Your task to perform on an android device: Show the shopping cart on bestbuy. Search for jbl flip 4 on bestbuy, select the first entry, add it to the cart, then select checkout. Image 0: 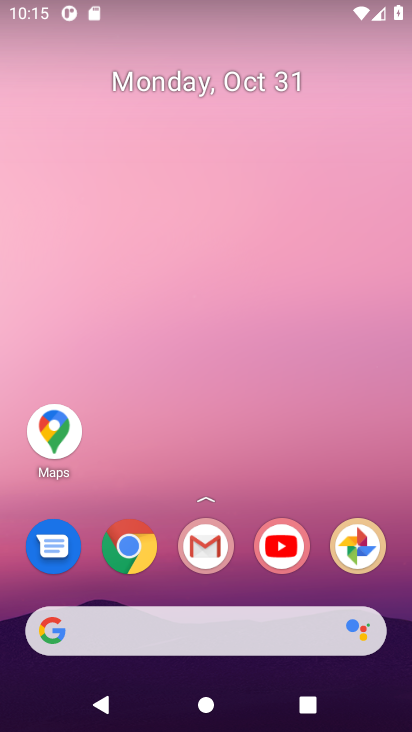
Step 0: click (140, 550)
Your task to perform on an android device: Show the shopping cart on bestbuy. Search for jbl flip 4 on bestbuy, select the first entry, add it to the cart, then select checkout. Image 1: 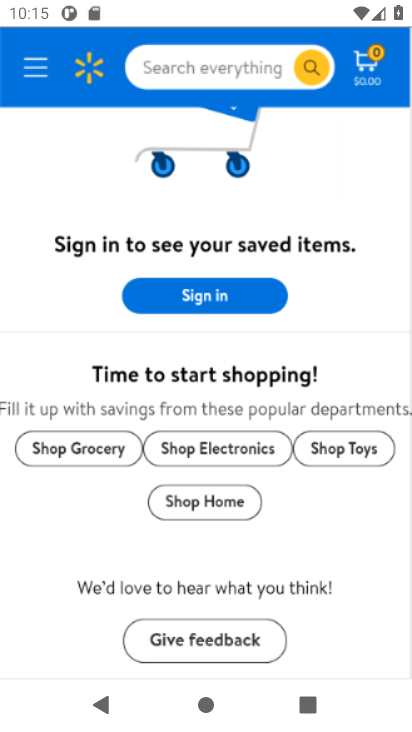
Step 1: click (140, 550)
Your task to perform on an android device: Show the shopping cart on bestbuy. Search for jbl flip 4 on bestbuy, select the first entry, add it to the cart, then select checkout. Image 2: 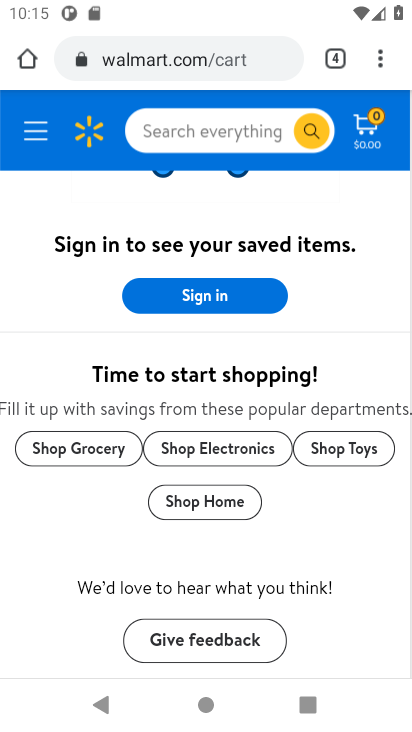
Step 2: click (138, 55)
Your task to perform on an android device: Show the shopping cart on bestbuy. Search for jbl flip 4 on bestbuy, select the first entry, add it to the cart, then select checkout. Image 3: 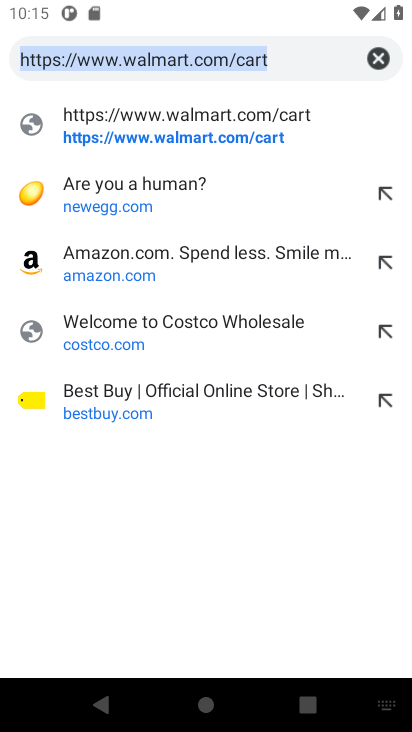
Step 3: type "bestbuy."
Your task to perform on an android device: Show the shopping cart on bestbuy. Search for jbl flip 4 on bestbuy, select the first entry, add it to the cart, then select checkout. Image 4: 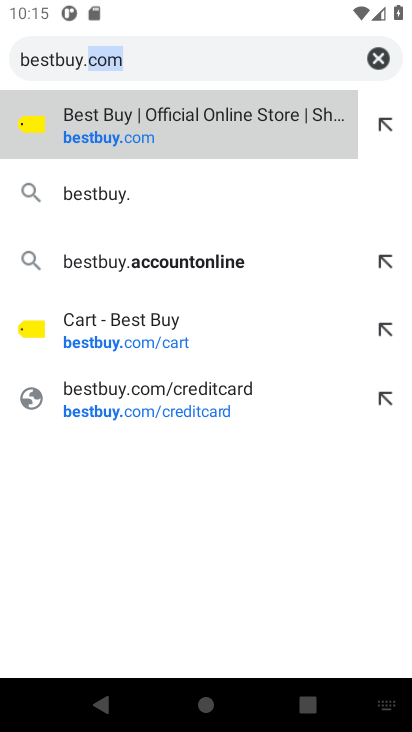
Step 4: press enter
Your task to perform on an android device: Show the shopping cart on bestbuy. Search for jbl flip 4 on bestbuy, select the first entry, add it to the cart, then select checkout. Image 5: 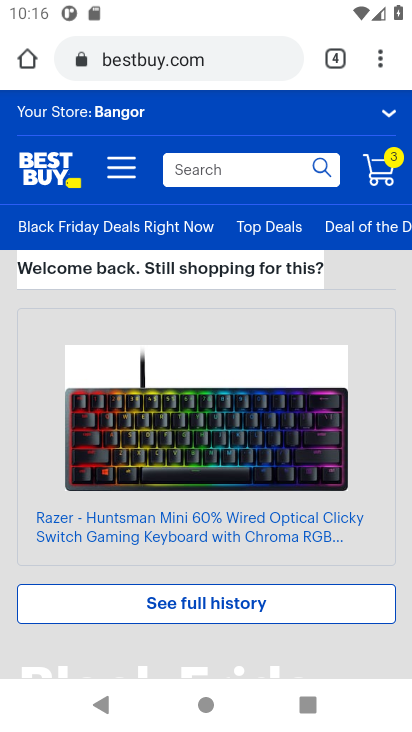
Step 5: click (384, 173)
Your task to perform on an android device: Show the shopping cart on bestbuy. Search for jbl flip 4 on bestbuy, select the first entry, add it to the cart, then select checkout. Image 6: 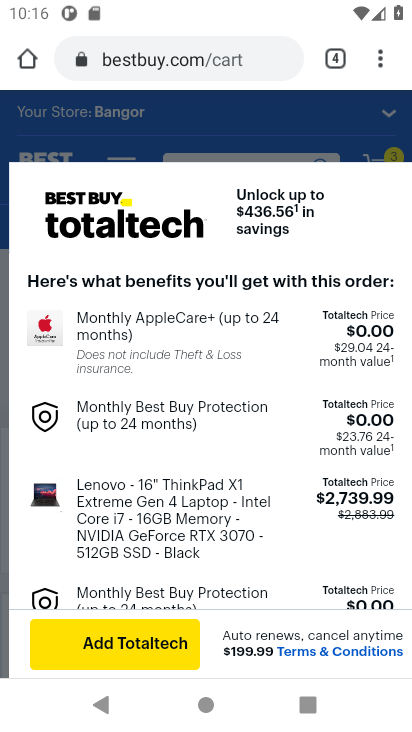
Step 6: click (259, 172)
Your task to perform on an android device: Show the shopping cart on bestbuy. Search for jbl flip 4 on bestbuy, select the first entry, add it to the cart, then select checkout. Image 7: 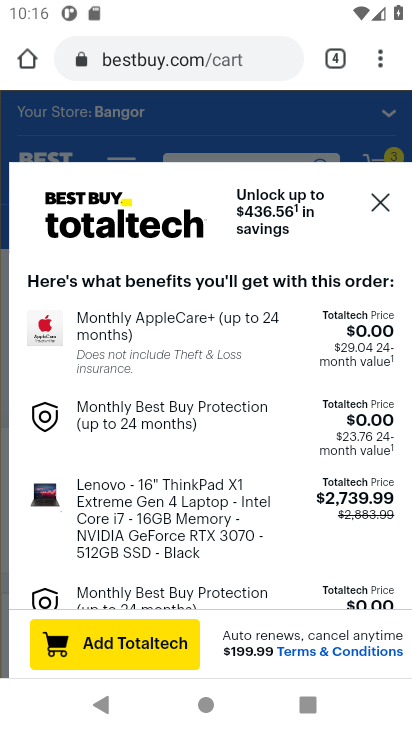
Step 7: click (251, 142)
Your task to perform on an android device: Show the shopping cart on bestbuy. Search for jbl flip 4 on bestbuy, select the first entry, add it to the cart, then select checkout. Image 8: 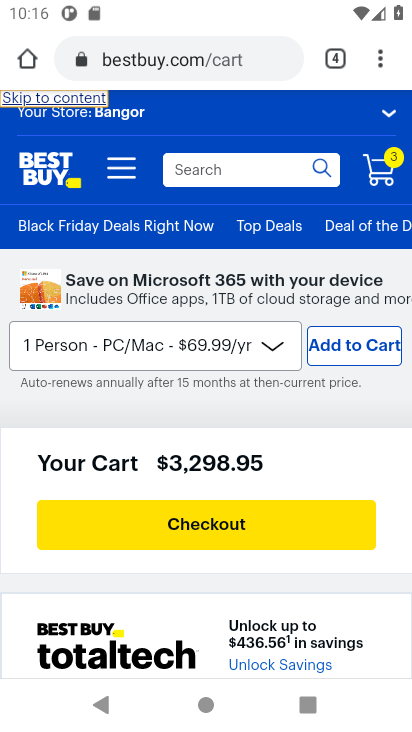
Step 8: click (239, 180)
Your task to perform on an android device: Show the shopping cart on bestbuy. Search for jbl flip 4 on bestbuy, select the first entry, add it to the cart, then select checkout. Image 9: 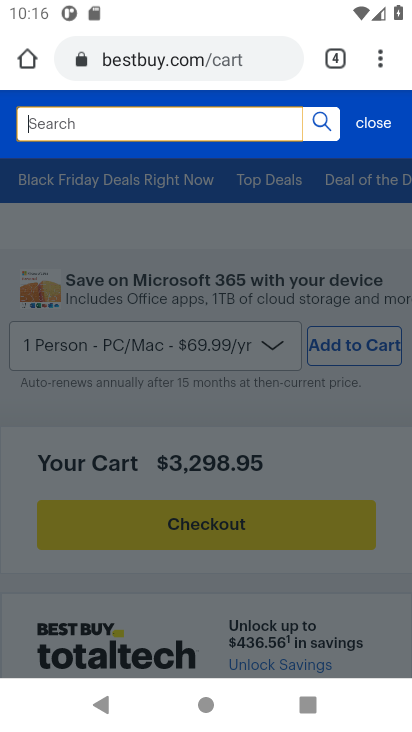
Step 9: click (227, 170)
Your task to perform on an android device: Show the shopping cart on bestbuy. Search for jbl flip 4 on bestbuy, select the first entry, add it to the cart, then select checkout. Image 10: 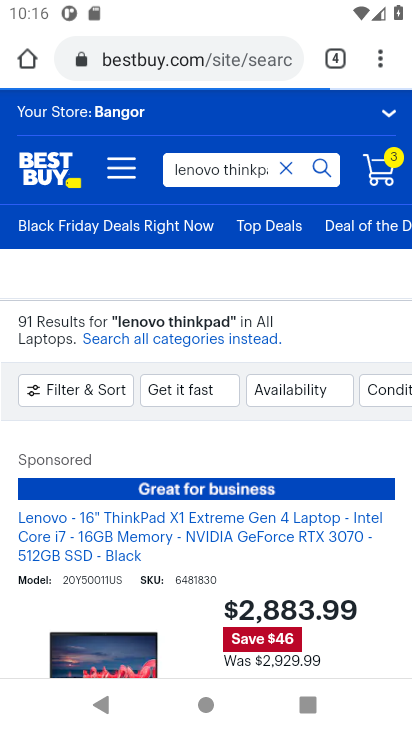
Step 10: type "jbl flip 4"
Your task to perform on an android device: Show the shopping cart on bestbuy. Search for jbl flip 4 on bestbuy, select the first entry, add it to the cart, then select checkout. Image 11: 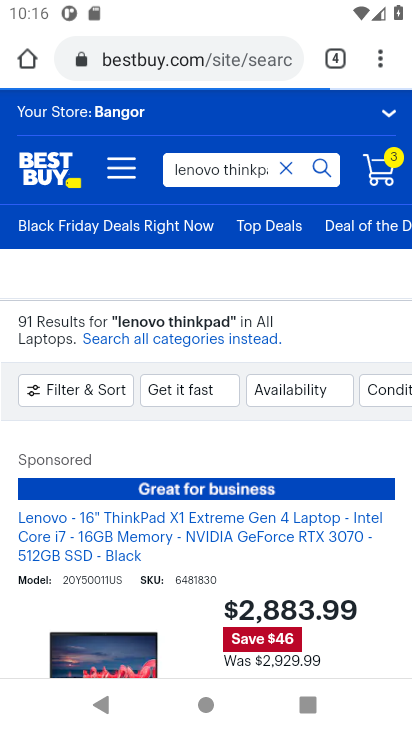
Step 11: click (289, 173)
Your task to perform on an android device: Show the shopping cart on bestbuy. Search for jbl flip 4 on bestbuy, select the first entry, add it to the cart, then select checkout. Image 12: 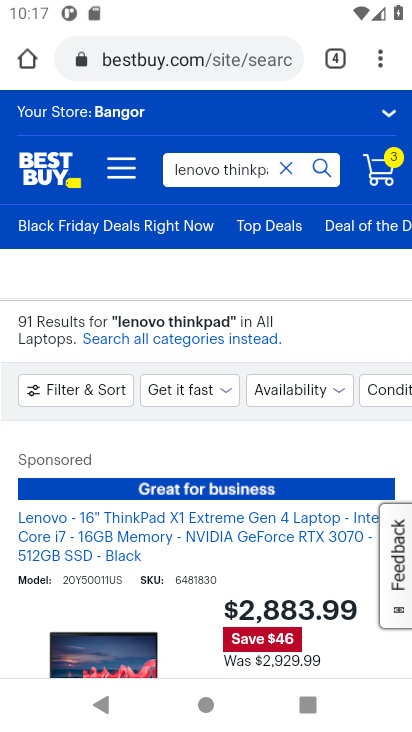
Step 12: click (289, 173)
Your task to perform on an android device: Show the shopping cart on bestbuy. Search for jbl flip 4 on bestbuy, select the first entry, add it to the cart, then select checkout. Image 13: 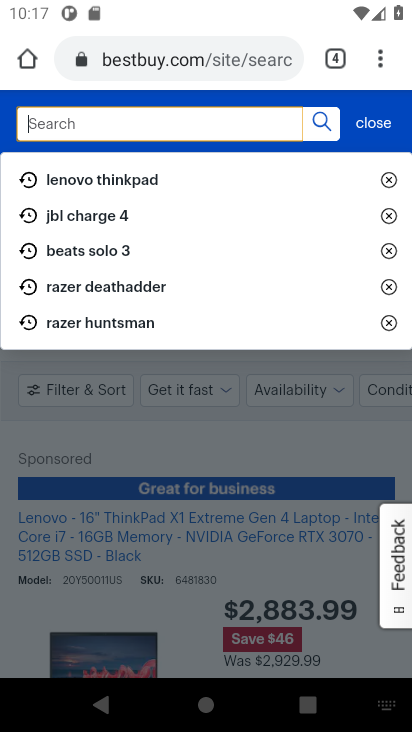
Step 13: click (188, 138)
Your task to perform on an android device: Show the shopping cart on bestbuy. Search for jbl flip 4 on bestbuy, select the first entry, add it to the cart, then select checkout. Image 14: 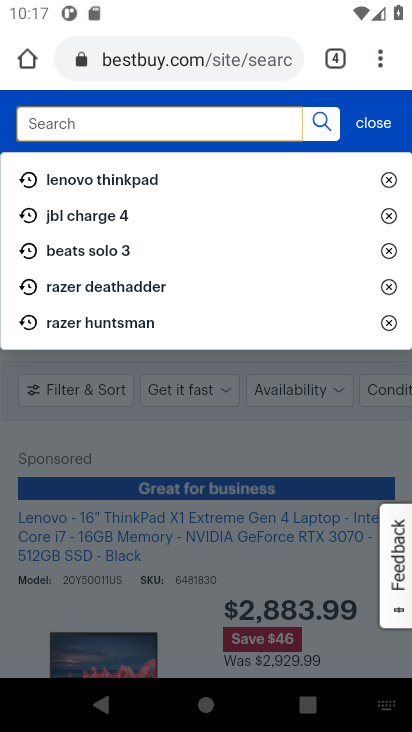
Step 14: type " jbl flip 4"
Your task to perform on an android device: Show the shopping cart on bestbuy. Search for jbl flip 4 on bestbuy, select the first entry, add it to the cart, then select checkout. Image 15: 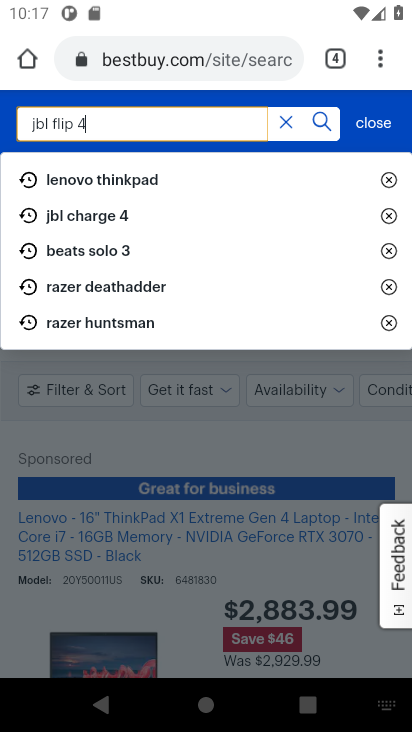
Step 15: press enter
Your task to perform on an android device: Show the shopping cart on bestbuy. Search for jbl flip 4 on bestbuy, select the first entry, add it to the cart, then select checkout. Image 16: 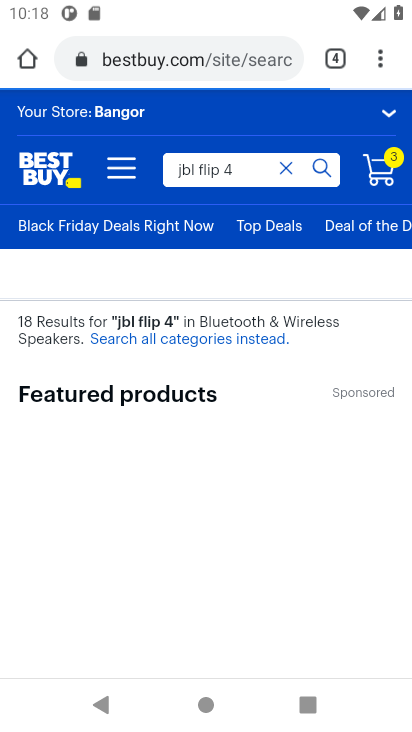
Step 16: drag from (262, 478) to (260, 232)
Your task to perform on an android device: Show the shopping cart on bestbuy. Search for jbl flip 4 on bestbuy, select the first entry, add it to the cart, then select checkout. Image 17: 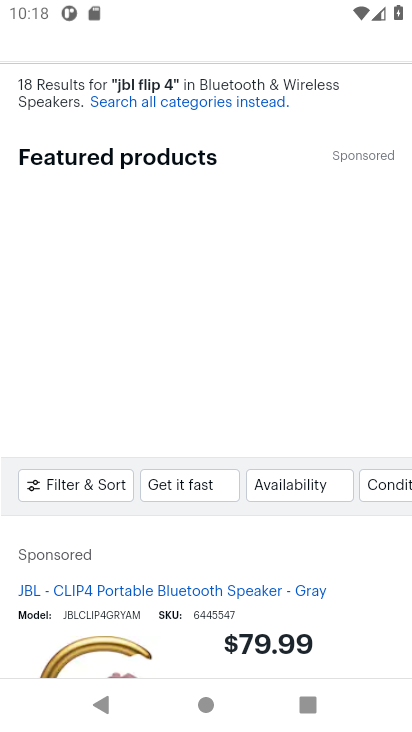
Step 17: drag from (261, 413) to (275, 229)
Your task to perform on an android device: Show the shopping cart on bestbuy. Search for jbl flip 4 on bestbuy, select the first entry, add it to the cart, then select checkout. Image 18: 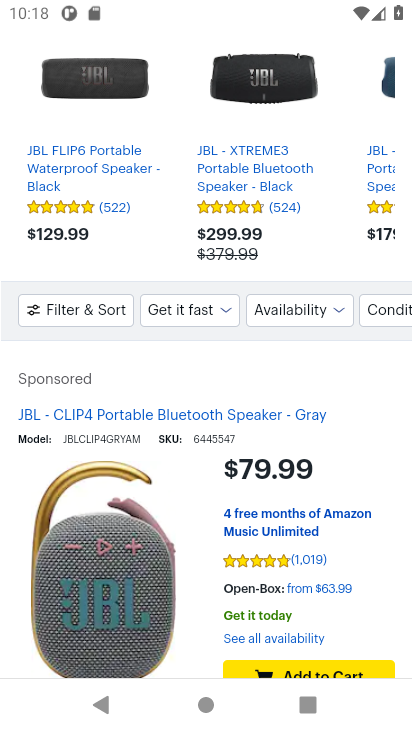
Step 18: drag from (242, 416) to (328, 154)
Your task to perform on an android device: Show the shopping cart on bestbuy. Search for jbl flip 4 on bestbuy, select the first entry, add it to the cart, then select checkout. Image 19: 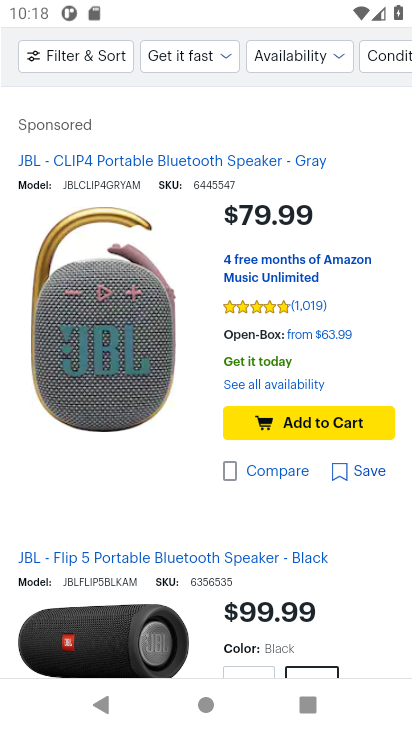
Step 19: drag from (325, 158) to (264, 583)
Your task to perform on an android device: Show the shopping cart on bestbuy. Search for jbl flip 4 on bestbuy, select the first entry, add it to the cart, then select checkout. Image 20: 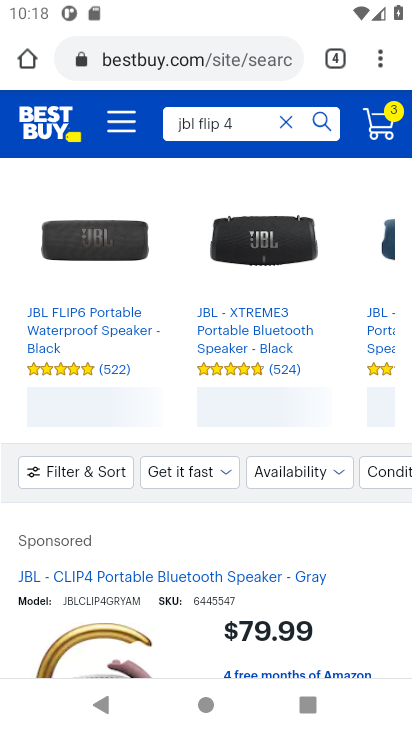
Step 20: drag from (276, 306) to (282, 566)
Your task to perform on an android device: Show the shopping cart on bestbuy. Search for jbl flip 4 on bestbuy, select the first entry, add it to the cart, then select checkout. Image 21: 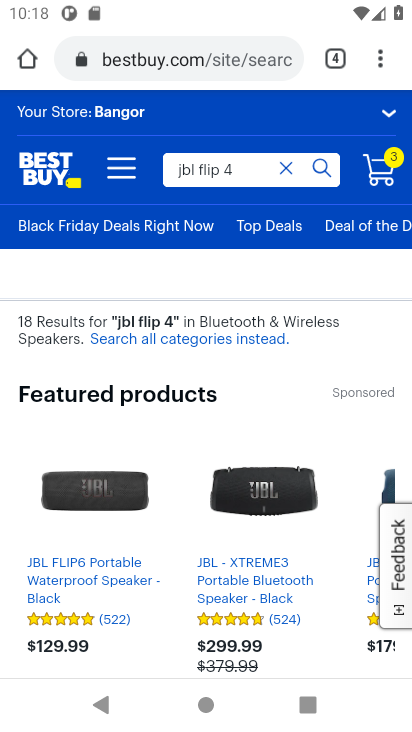
Step 21: drag from (204, 376) to (227, 236)
Your task to perform on an android device: Show the shopping cart on bestbuy. Search for jbl flip 4 on bestbuy, select the first entry, add it to the cart, then select checkout. Image 22: 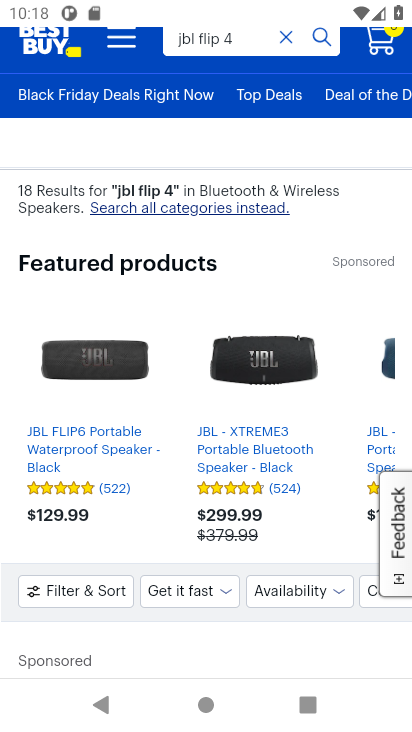
Step 22: drag from (188, 499) to (236, 255)
Your task to perform on an android device: Show the shopping cart on bestbuy. Search for jbl flip 4 on bestbuy, select the first entry, add it to the cart, then select checkout. Image 23: 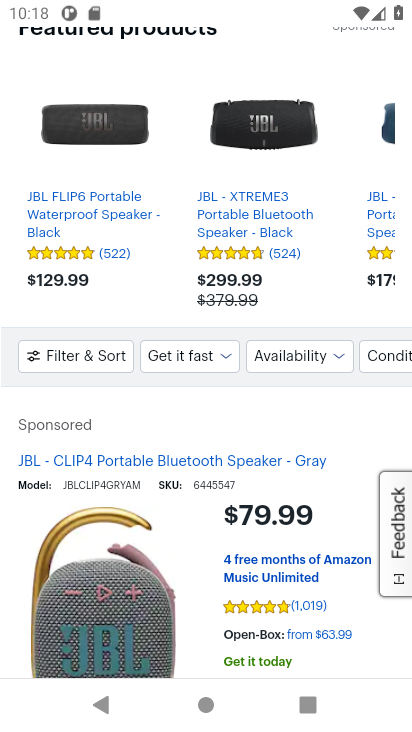
Step 23: drag from (191, 563) to (230, 179)
Your task to perform on an android device: Show the shopping cart on bestbuy. Search for jbl flip 4 on bestbuy, select the first entry, add it to the cart, then select checkout. Image 24: 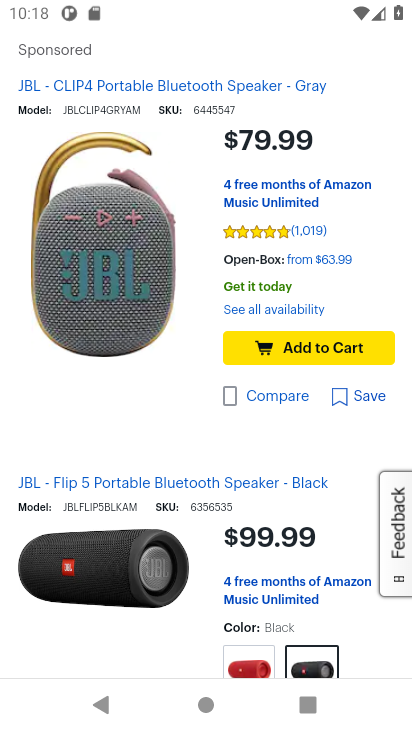
Step 24: drag from (232, 506) to (277, 199)
Your task to perform on an android device: Show the shopping cart on bestbuy. Search for jbl flip 4 on bestbuy, select the first entry, add it to the cart, then select checkout. Image 25: 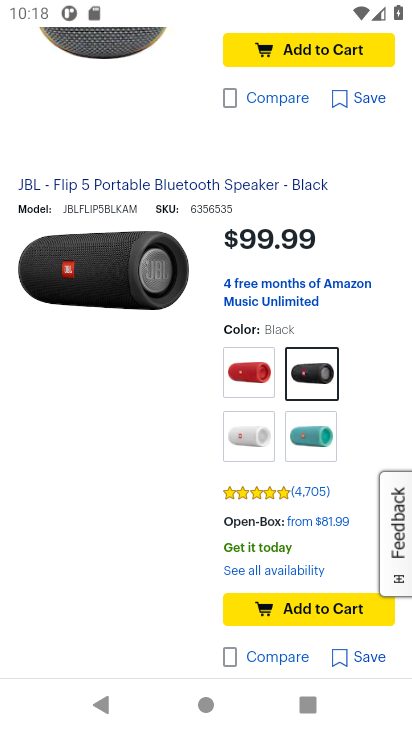
Step 25: drag from (193, 515) to (267, 175)
Your task to perform on an android device: Show the shopping cart on bestbuy. Search for jbl flip 4 on bestbuy, select the first entry, add it to the cart, then select checkout. Image 26: 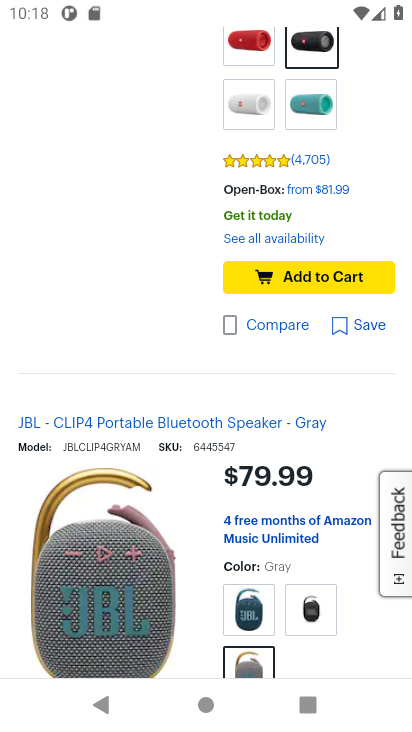
Step 26: drag from (156, 242) to (178, 680)
Your task to perform on an android device: Show the shopping cart on bestbuy. Search for jbl flip 4 on bestbuy, select the first entry, add it to the cart, then select checkout. Image 27: 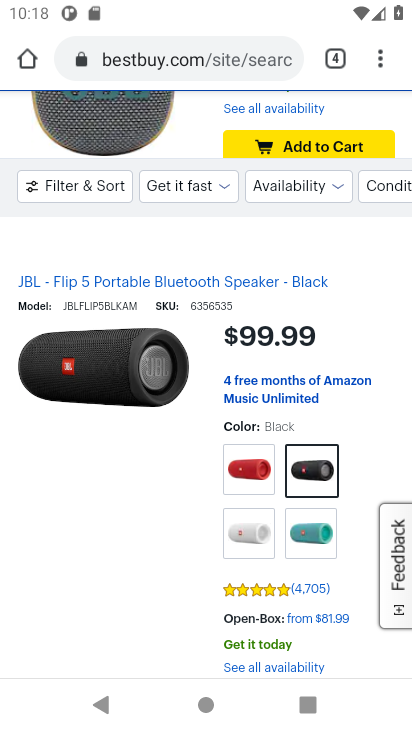
Step 27: drag from (194, 249) to (183, 582)
Your task to perform on an android device: Show the shopping cart on bestbuy. Search for jbl flip 4 on bestbuy, select the first entry, add it to the cart, then select checkout. Image 28: 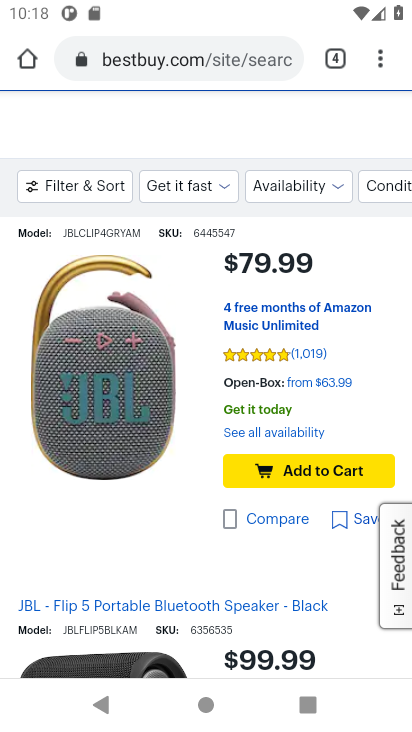
Step 28: drag from (157, 282) to (146, 617)
Your task to perform on an android device: Show the shopping cart on bestbuy. Search for jbl flip 4 on bestbuy, select the first entry, add it to the cart, then select checkout. Image 29: 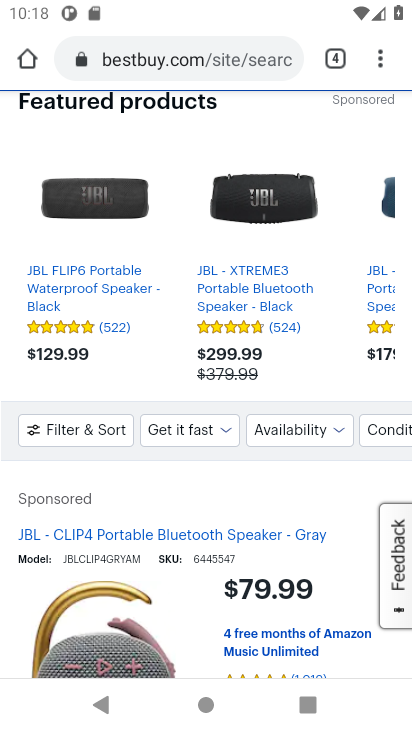
Step 29: click (99, 581)
Your task to perform on an android device: Show the shopping cart on bestbuy. Search for jbl flip 4 on bestbuy, select the first entry, add it to the cart, then select checkout. Image 30: 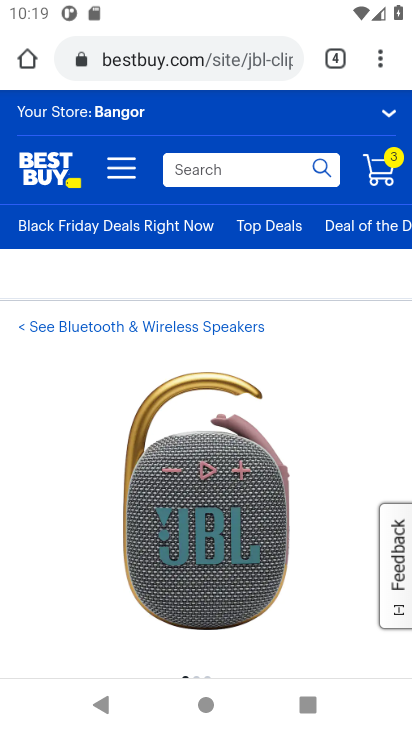
Step 30: drag from (275, 544) to (297, 247)
Your task to perform on an android device: Show the shopping cart on bestbuy. Search for jbl flip 4 on bestbuy, select the first entry, add it to the cart, then select checkout. Image 31: 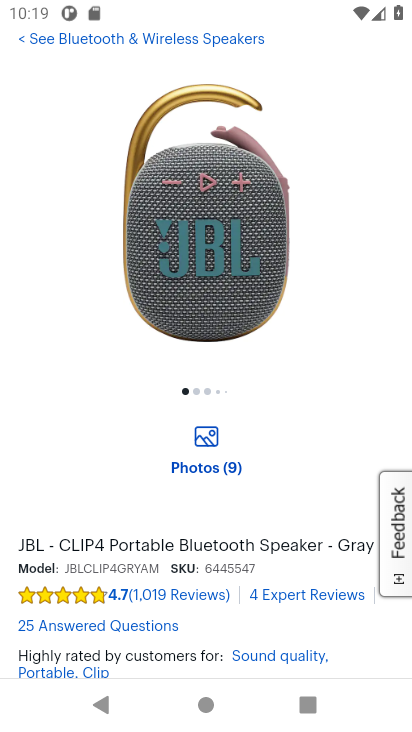
Step 31: drag from (283, 531) to (288, 269)
Your task to perform on an android device: Show the shopping cart on bestbuy. Search for jbl flip 4 on bestbuy, select the first entry, add it to the cart, then select checkout. Image 32: 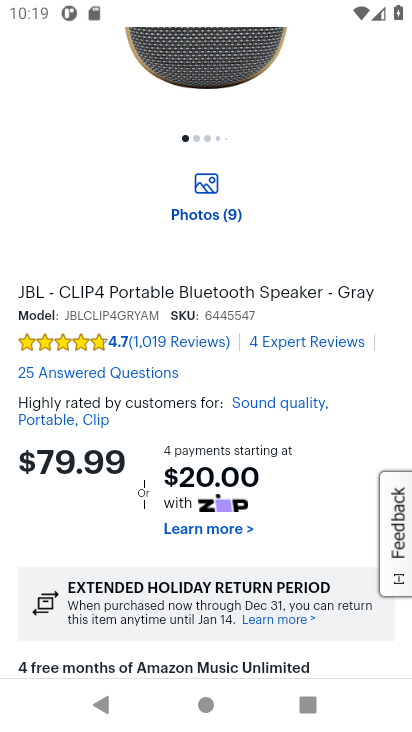
Step 32: drag from (266, 540) to (268, 248)
Your task to perform on an android device: Show the shopping cart on bestbuy. Search for jbl flip 4 on bestbuy, select the first entry, add it to the cart, then select checkout. Image 33: 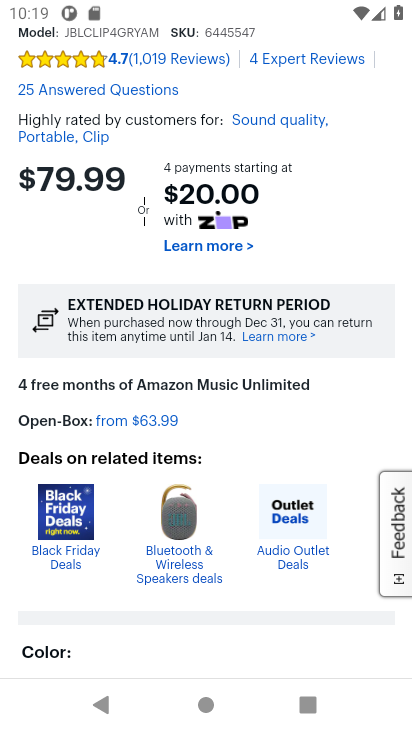
Step 33: drag from (285, 562) to (283, 302)
Your task to perform on an android device: Show the shopping cart on bestbuy. Search for jbl flip 4 on bestbuy, select the first entry, add it to the cart, then select checkout. Image 34: 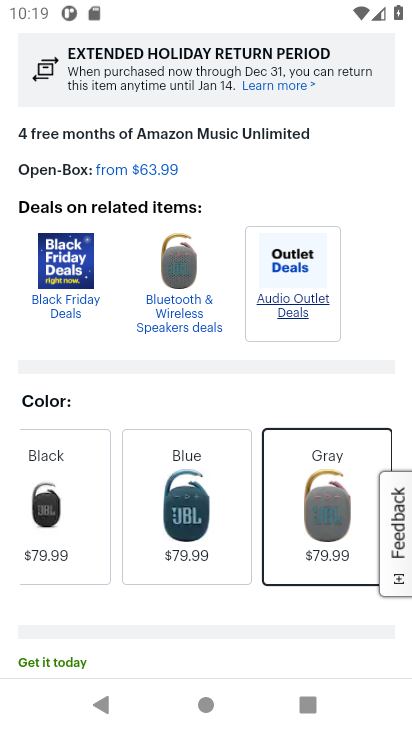
Step 34: drag from (294, 523) to (281, 266)
Your task to perform on an android device: Show the shopping cart on bestbuy. Search for jbl flip 4 on bestbuy, select the first entry, add it to the cart, then select checkout. Image 35: 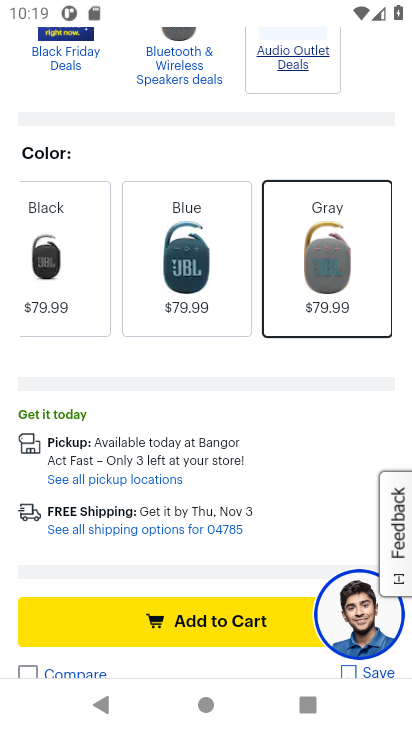
Step 35: click (210, 613)
Your task to perform on an android device: Show the shopping cart on bestbuy. Search for jbl flip 4 on bestbuy, select the first entry, add it to the cart, then select checkout. Image 36: 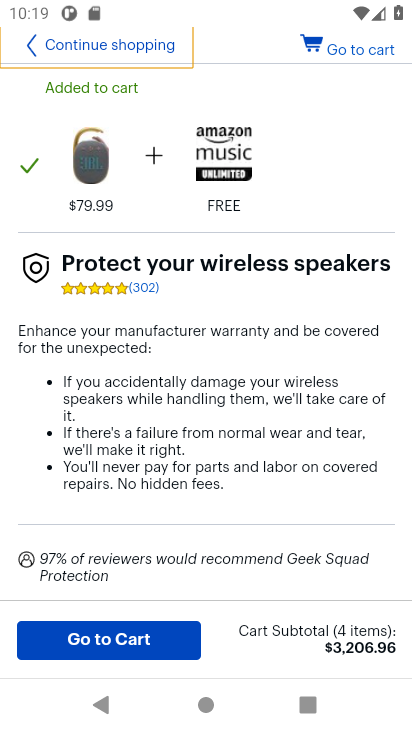
Step 36: drag from (285, 194) to (277, 495)
Your task to perform on an android device: Show the shopping cart on bestbuy. Search for jbl flip 4 on bestbuy, select the first entry, add it to the cart, then select checkout. Image 37: 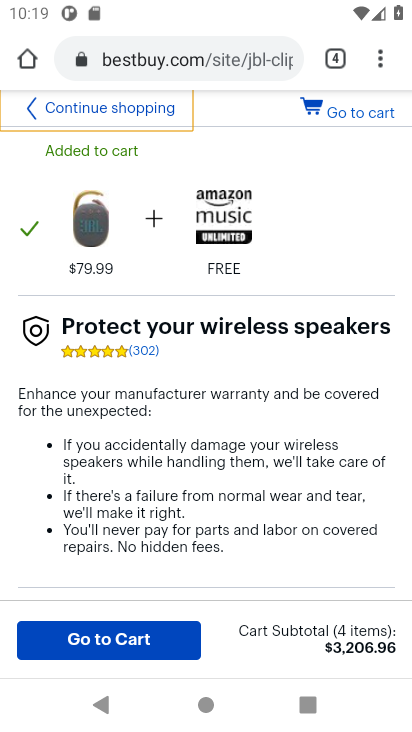
Step 37: click (382, 110)
Your task to perform on an android device: Show the shopping cart on bestbuy. Search for jbl flip 4 on bestbuy, select the first entry, add it to the cart, then select checkout. Image 38: 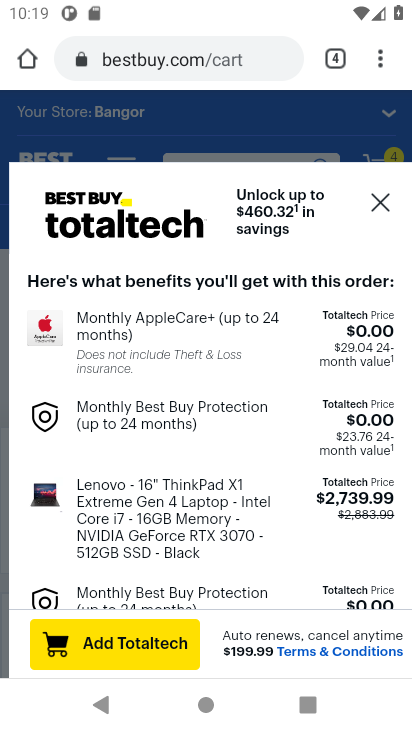
Step 38: drag from (293, 471) to (293, 234)
Your task to perform on an android device: Show the shopping cart on bestbuy. Search for jbl flip 4 on bestbuy, select the first entry, add it to the cart, then select checkout. Image 39: 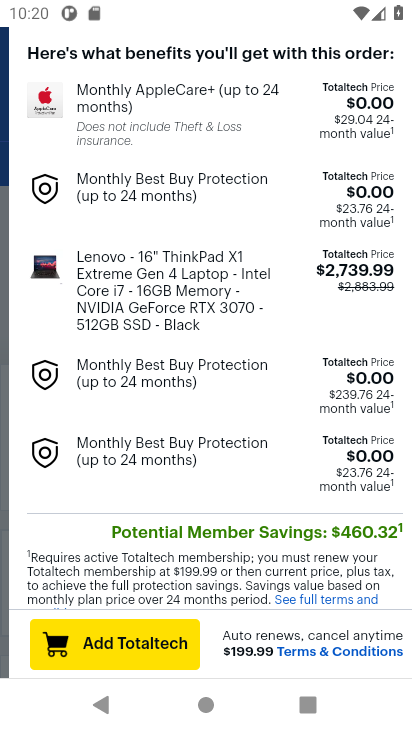
Step 39: drag from (290, 425) to (295, 224)
Your task to perform on an android device: Show the shopping cart on bestbuy. Search for jbl flip 4 on bestbuy, select the first entry, add it to the cart, then select checkout. Image 40: 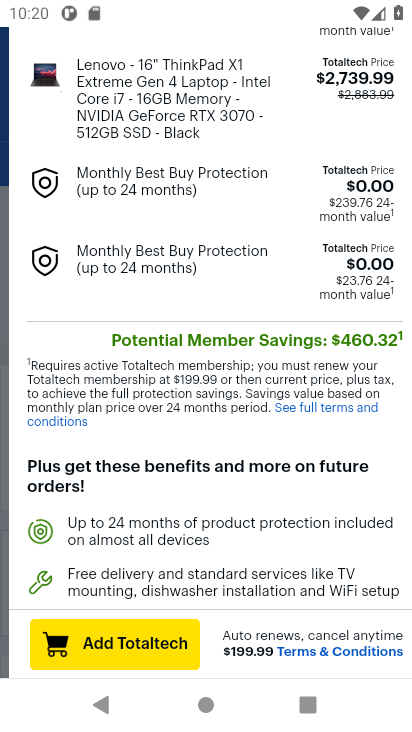
Step 40: drag from (295, 122) to (260, 426)
Your task to perform on an android device: Show the shopping cart on bestbuy. Search for jbl flip 4 on bestbuy, select the first entry, add it to the cart, then select checkout. Image 41: 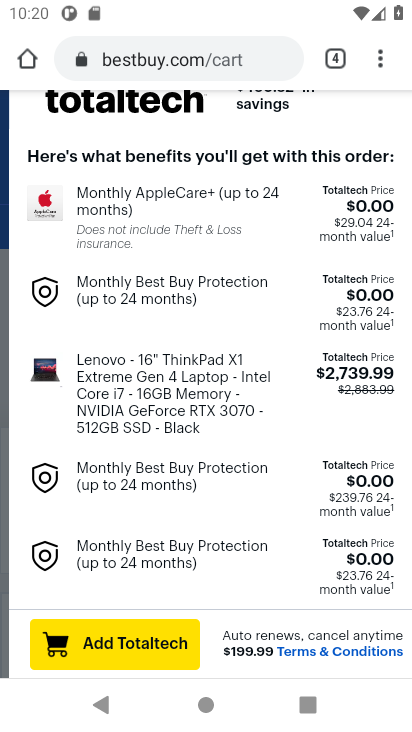
Step 41: drag from (239, 157) to (233, 418)
Your task to perform on an android device: Show the shopping cart on bestbuy. Search for jbl flip 4 on bestbuy, select the first entry, add it to the cart, then select checkout. Image 42: 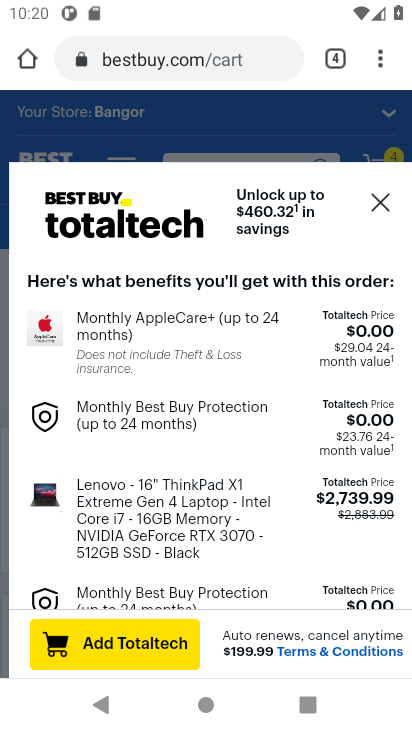
Step 42: click (377, 199)
Your task to perform on an android device: Show the shopping cart on bestbuy. Search for jbl flip 4 on bestbuy, select the first entry, add it to the cart, then select checkout. Image 43: 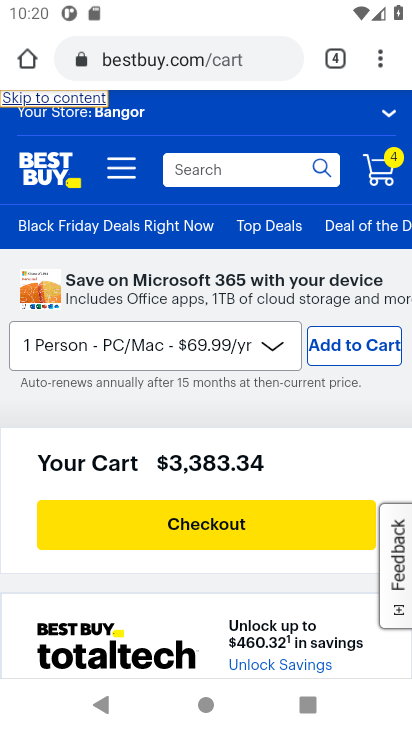
Step 43: click (384, 168)
Your task to perform on an android device: Show the shopping cart on bestbuy. Search for jbl flip 4 on bestbuy, select the first entry, add it to the cart, then select checkout. Image 44: 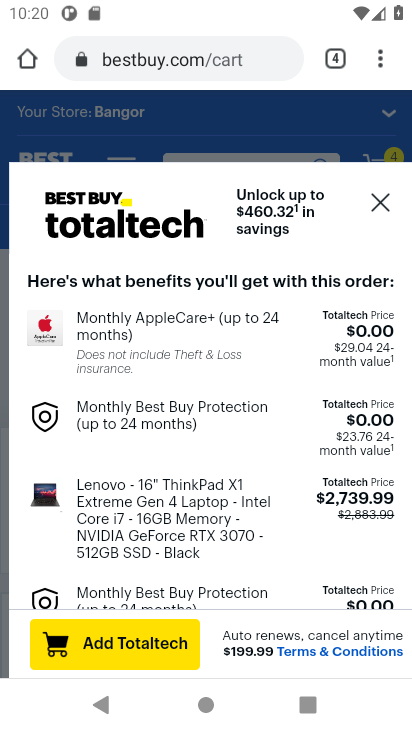
Step 44: click (380, 197)
Your task to perform on an android device: Show the shopping cart on bestbuy. Search for jbl flip 4 on bestbuy, select the first entry, add it to the cart, then select checkout. Image 45: 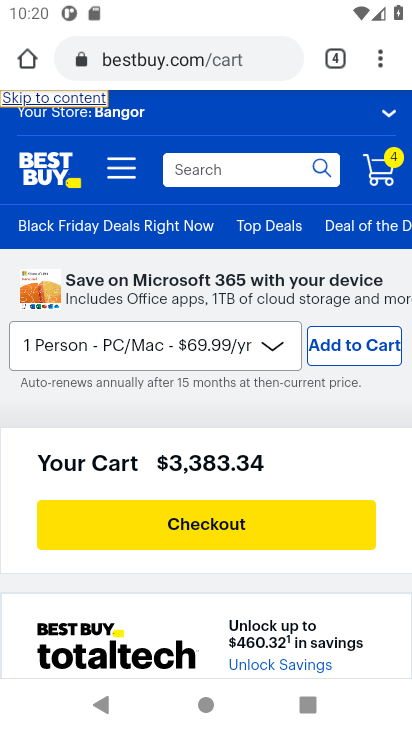
Step 45: click (383, 169)
Your task to perform on an android device: Show the shopping cart on bestbuy. Search for jbl flip 4 on bestbuy, select the first entry, add it to the cart, then select checkout. Image 46: 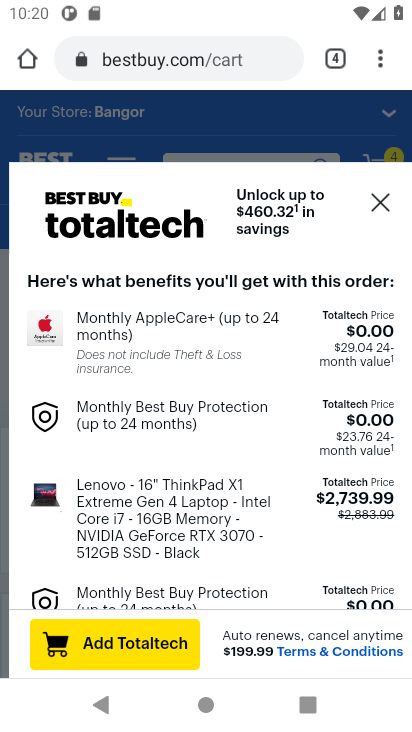
Step 46: click (382, 204)
Your task to perform on an android device: Show the shopping cart on bestbuy. Search for jbl flip 4 on bestbuy, select the first entry, add it to the cart, then select checkout. Image 47: 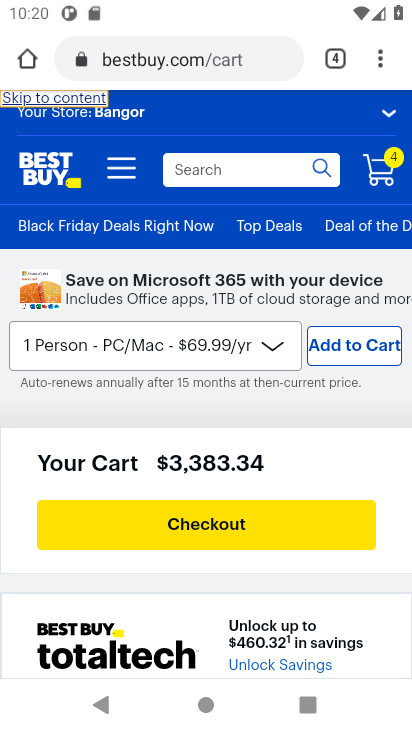
Step 47: click (258, 531)
Your task to perform on an android device: Show the shopping cart on bestbuy. Search for jbl flip 4 on bestbuy, select the first entry, add it to the cart, then select checkout. Image 48: 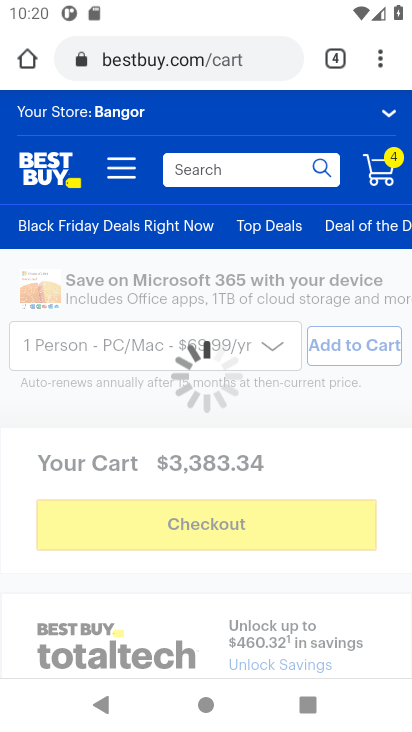
Step 48: task complete